Your task to perform on an android device: turn on the 24-hour format for clock Image 0: 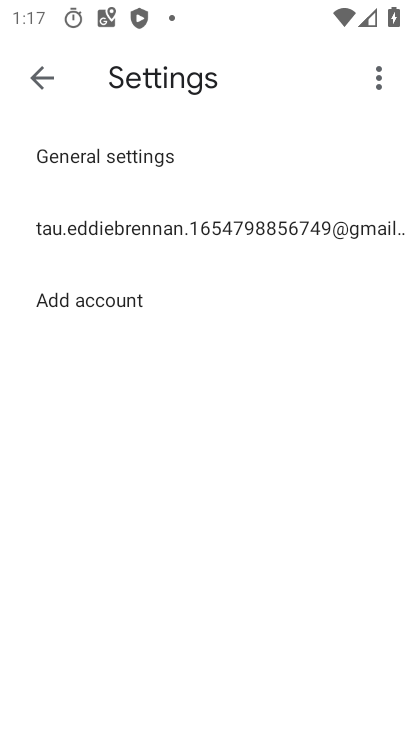
Step 0: press back button
Your task to perform on an android device: turn on the 24-hour format for clock Image 1: 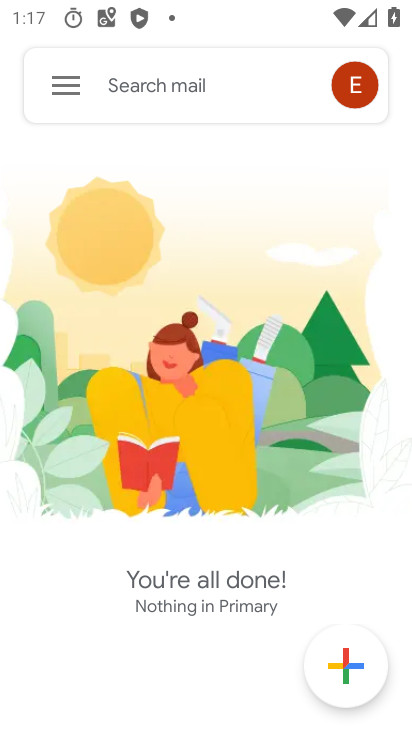
Step 1: press back button
Your task to perform on an android device: turn on the 24-hour format for clock Image 2: 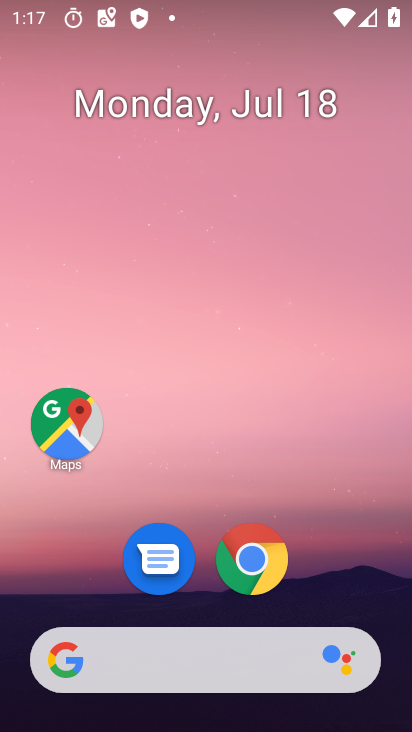
Step 2: drag from (66, 585) to (213, 66)
Your task to perform on an android device: turn on the 24-hour format for clock Image 3: 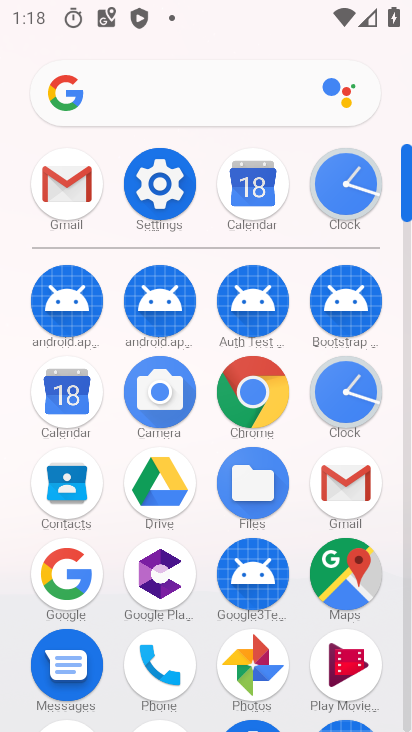
Step 3: click (335, 187)
Your task to perform on an android device: turn on the 24-hour format for clock Image 4: 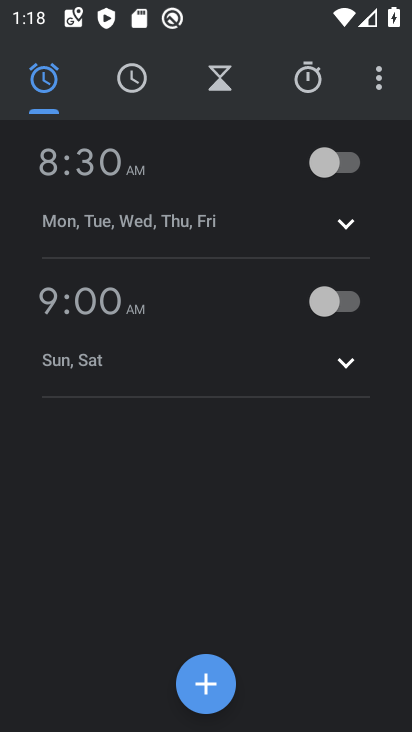
Step 4: click (379, 75)
Your task to perform on an android device: turn on the 24-hour format for clock Image 5: 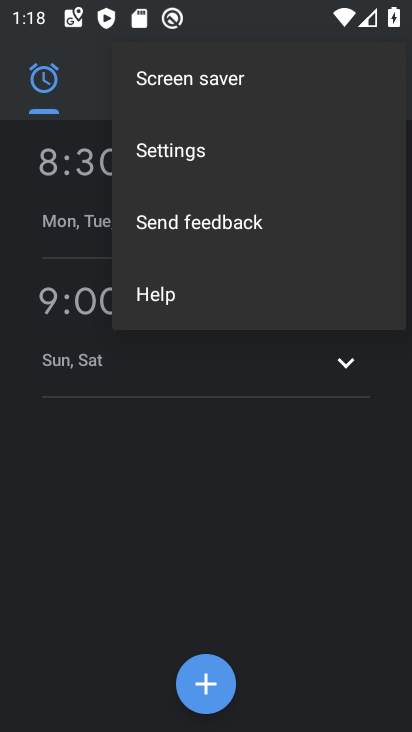
Step 5: click (174, 140)
Your task to perform on an android device: turn on the 24-hour format for clock Image 6: 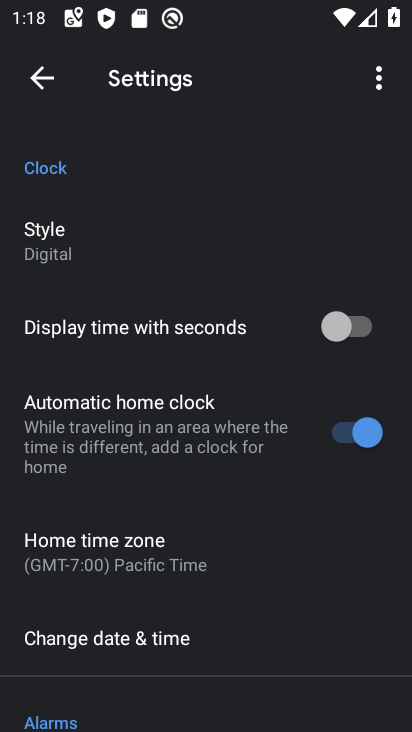
Step 6: click (109, 642)
Your task to perform on an android device: turn on the 24-hour format for clock Image 7: 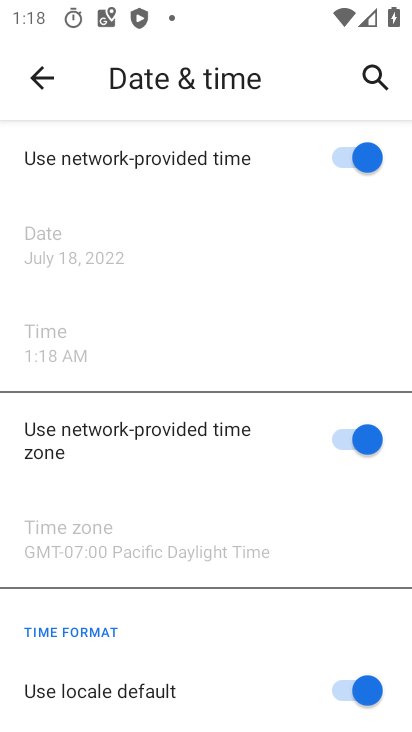
Step 7: drag from (137, 663) to (189, 138)
Your task to perform on an android device: turn on the 24-hour format for clock Image 8: 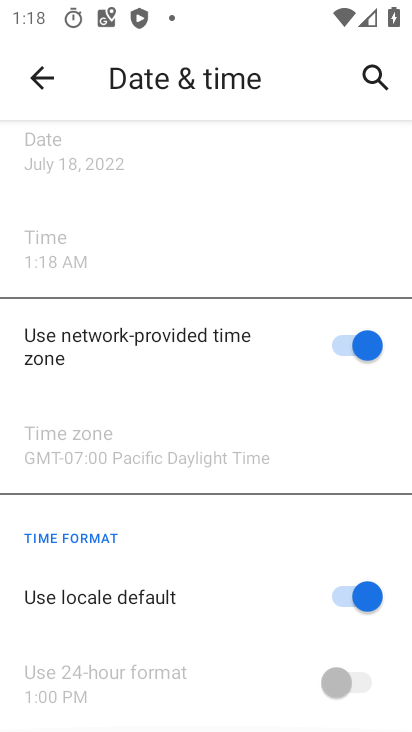
Step 8: click (363, 605)
Your task to perform on an android device: turn on the 24-hour format for clock Image 9: 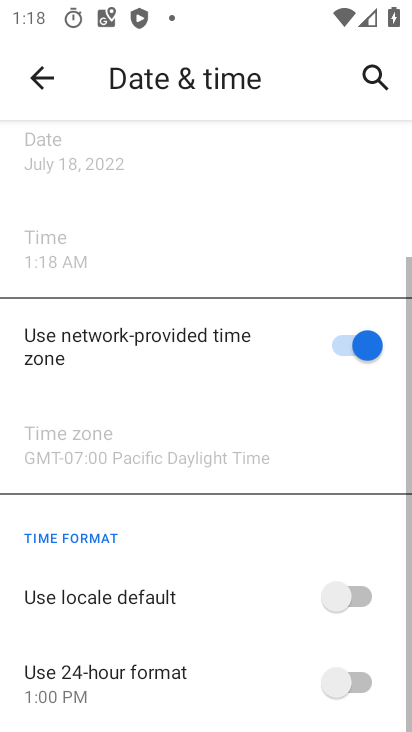
Step 9: click (336, 690)
Your task to perform on an android device: turn on the 24-hour format for clock Image 10: 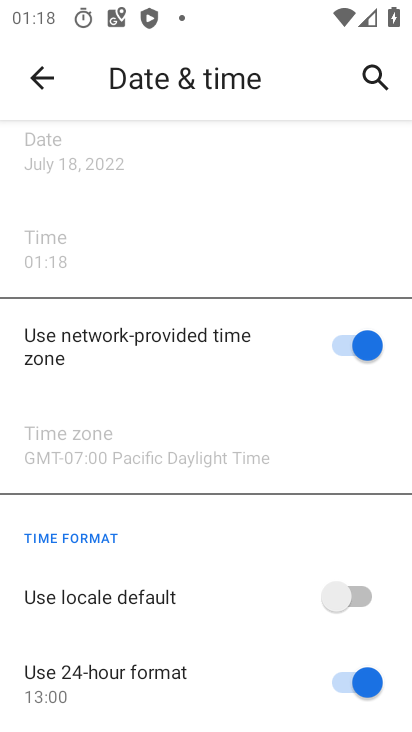
Step 10: task complete